Your task to perform on an android device: allow notifications from all sites in the chrome app Image 0: 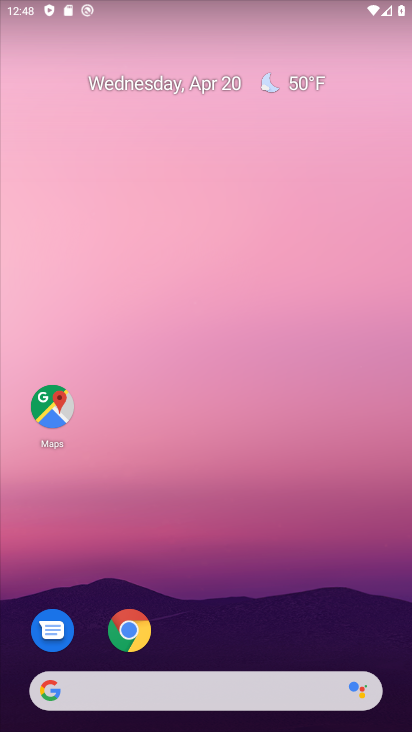
Step 0: click (127, 628)
Your task to perform on an android device: allow notifications from all sites in the chrome app Image 1: 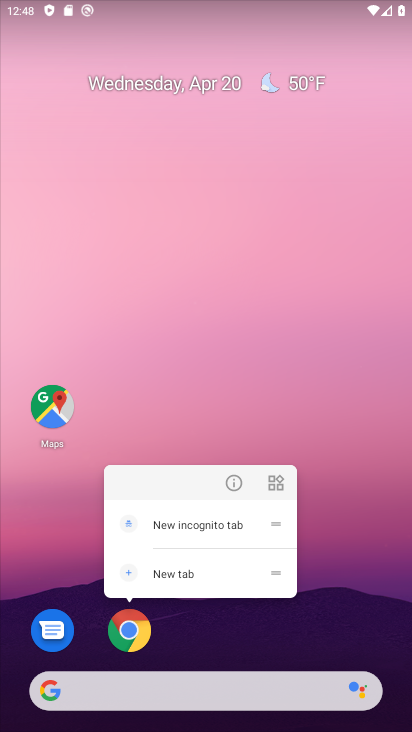
Step 1: click (129, 632)
Your task to perform on an android device: allow notifications from all sites in the chrome app Image 2: 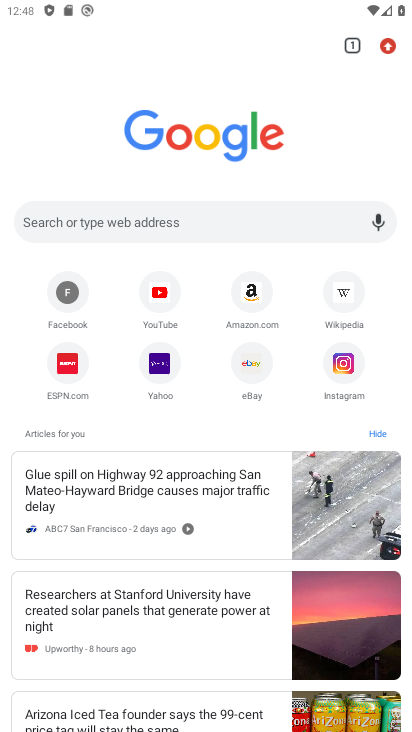
Step 2: click (389, 44)
Your task to perform on an android device: allow notifications from all sites in the chrome app Image 3: 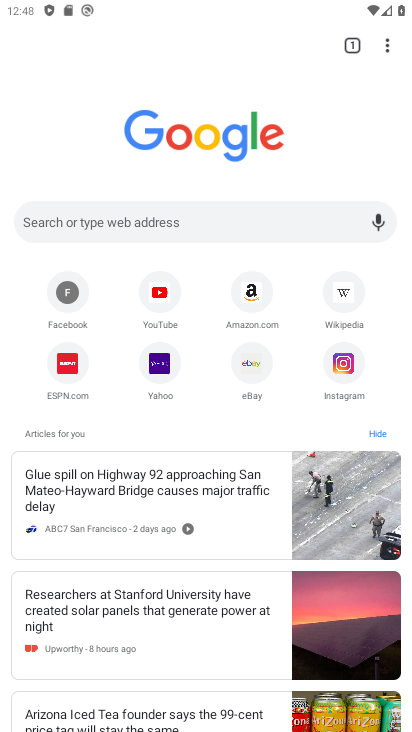
Step 3: click (383, 43)
Your task to perform on an android device: allow notifications from all sites in the chrome app Image 4: 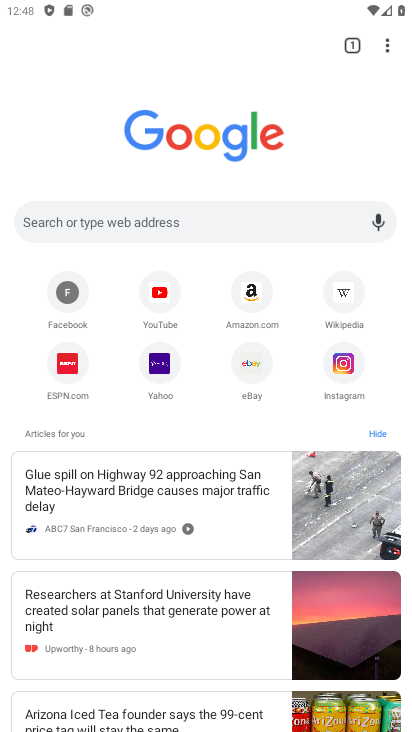
Step 4: click (381, 45)
Your task to perform on an android device: allow notifications from all sites in the chrome app Image 5: 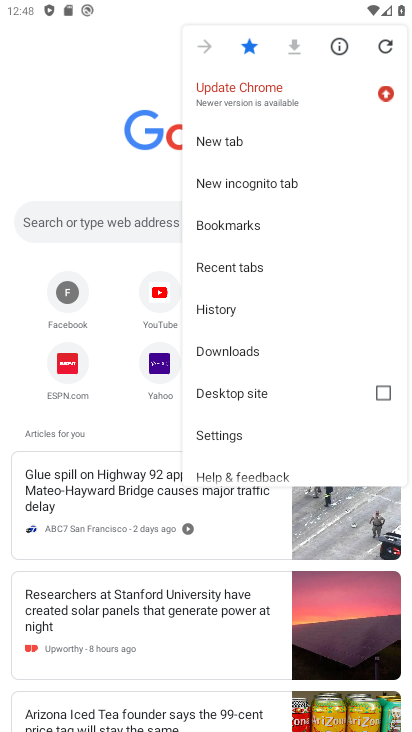
Step 5: click (214, 428)
Your task to perform on an android device: allow notifications from all sites in the chrome app Image 6: 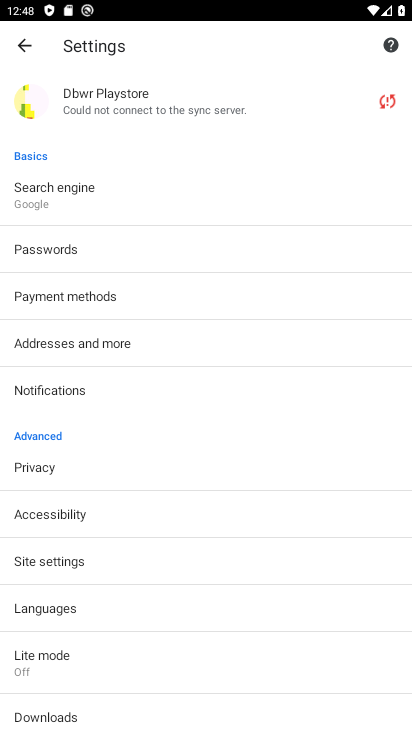
Step 6: click (96, 554)
Your task to perform on an android device: allow notifications from all sites in the chrome app Image 7: 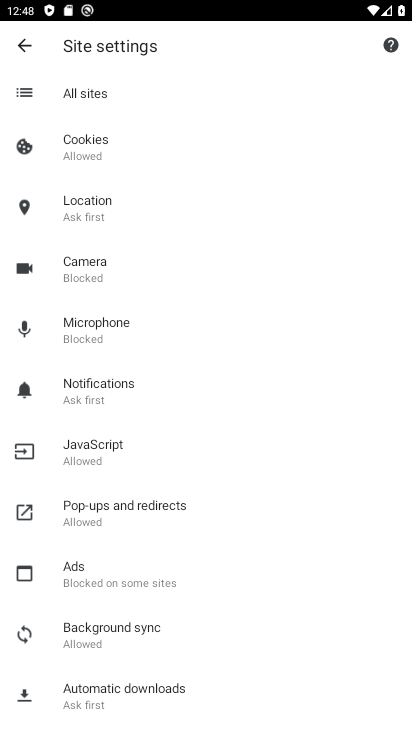
Step 7: click (129, 400)
Your task to perform on an android device: allow notifications from all sites in the chrome app Image 8: 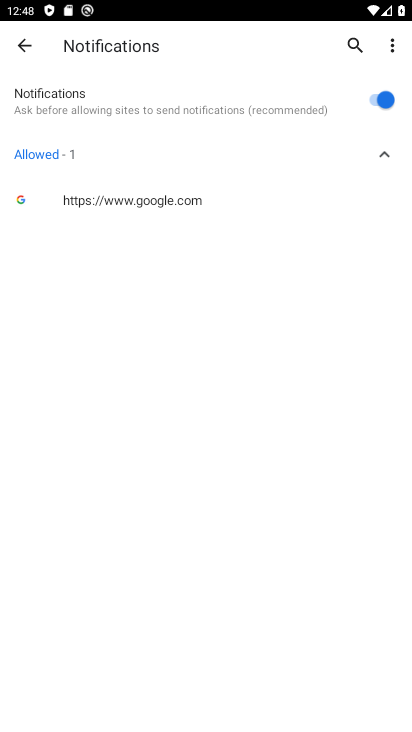
Step 8: click (28, 49)
Your task to perform on an android device: allow notifications from all sites in the chrome app Image 9: 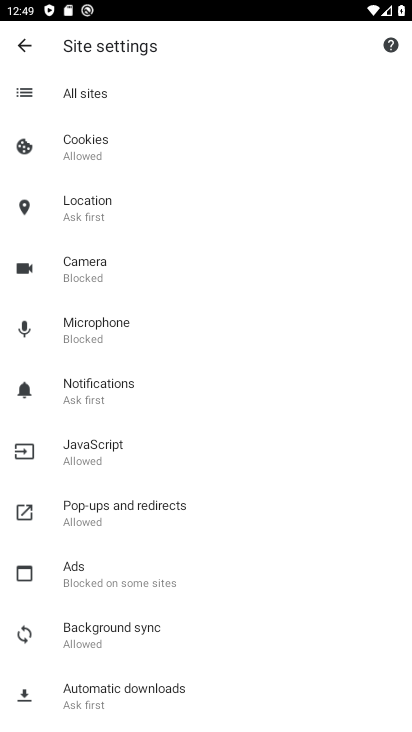
Step 9: click (110, 589)
Your task to perform on an android device: allow notifications from all sites in the chrome app Image 10: 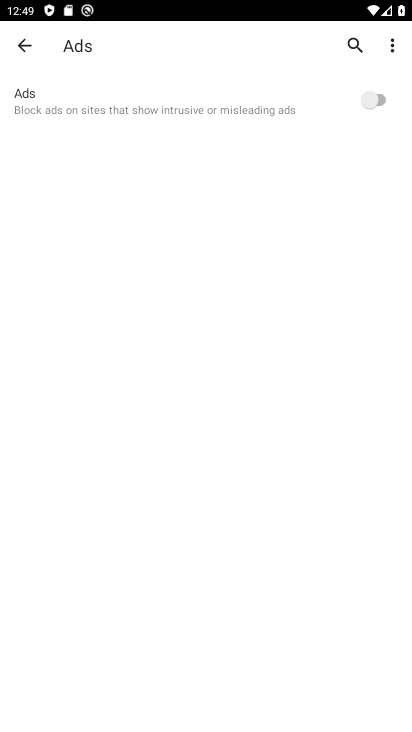
Step 10: click (361, 101)
Your task to perform on an android device: allow notifications from all sites in the chrome app Image 11: 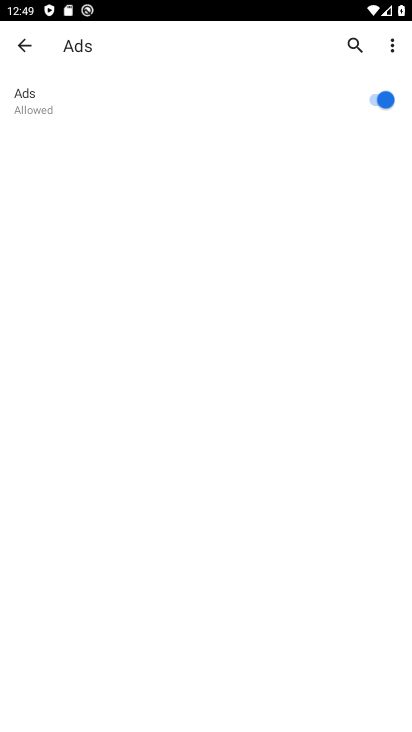
Step 11: click (28, 48)
Your task to perform on an android device: allow notifications from all sites in the chrome app Image 12: 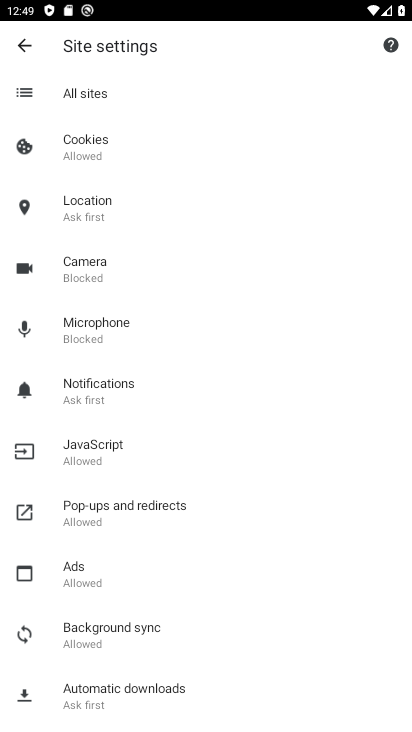
Step 12: task complete